Your task to perform on an android device: move a message to another label in the gmail app Image 0: 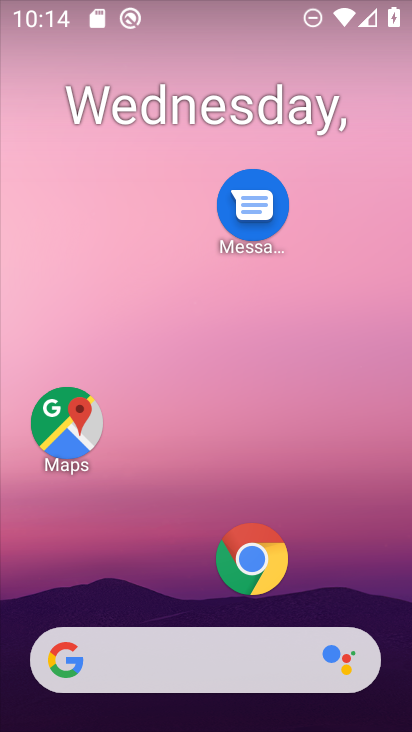
Step 0: drag from (164, 606) to (183, 179)
Your task to perform on an android device: move a message to another label in the gmail app Image 1: 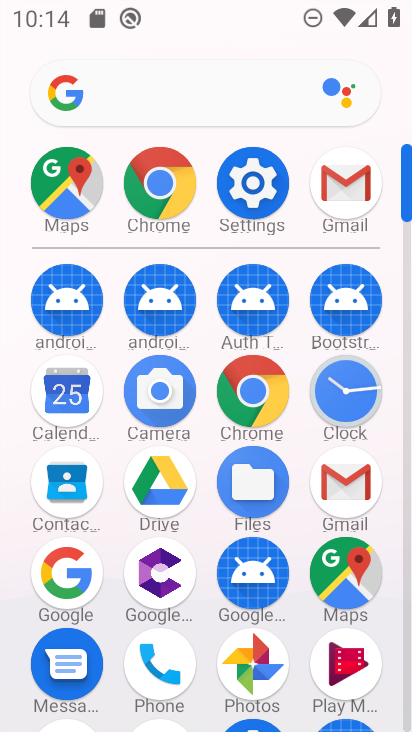
Step 1: click (350, 480)
Your task to perform on an android device: move a message to another label in the gmail app Image 2: 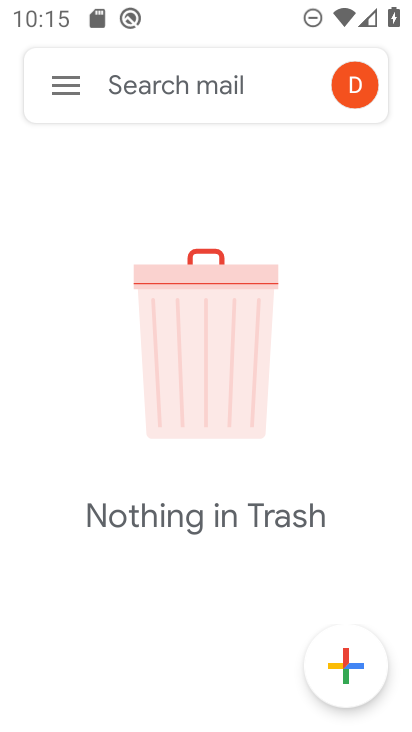
Step 2: press home button
Your task to perform on an android device: move a message to another label in the gmail app Image 3: 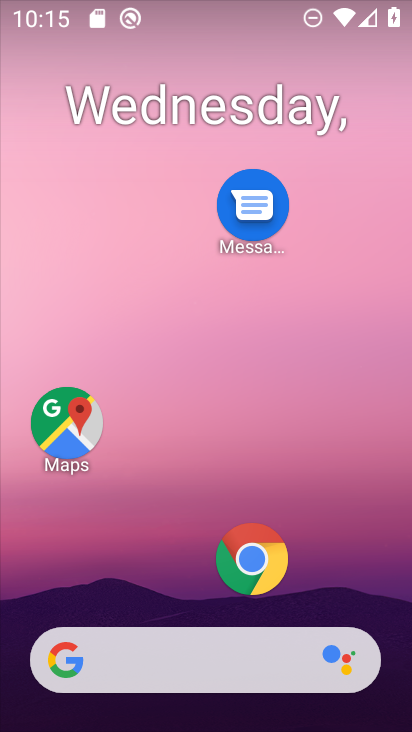
Step 3: drag from (199, 639) to (175, 36)
Your task to perform on an android device: move a message to another label in the gmail app Image 4: 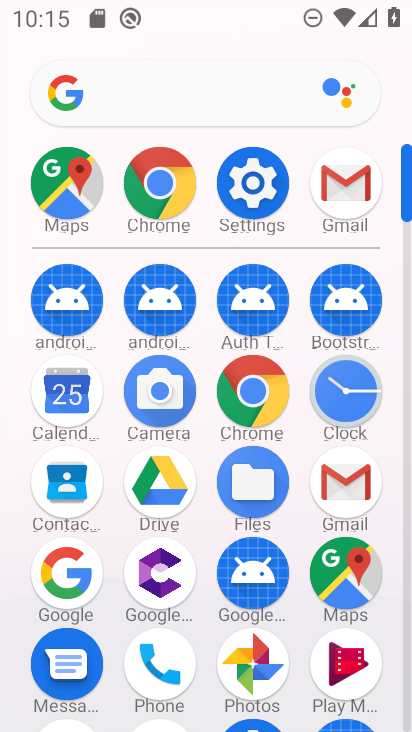
Step 4: click (356, 497)
Your task to perform on an android device: move a message to another label in the gmail app Image 5: 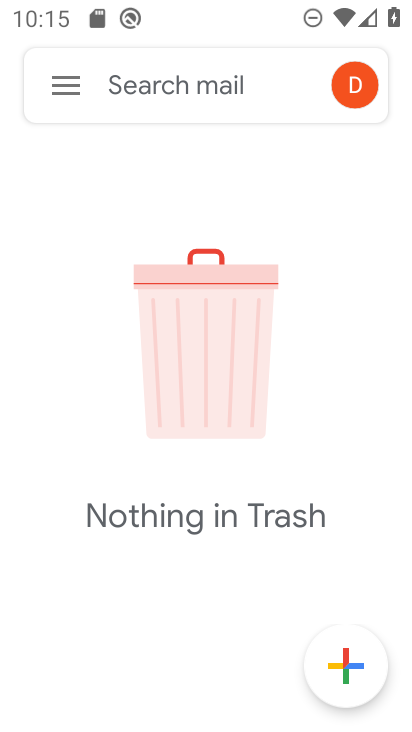
Step 5: click (81, 78)
Your task to perform on an android device: move a message to another label in the gmail app Image 6: 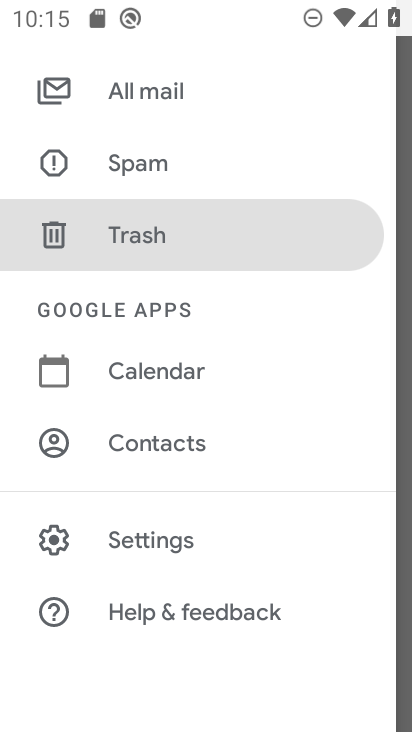
Step 6: click (174, 97)
Your task to perform on an android device: move a message to another label in the gmail app Image 7: 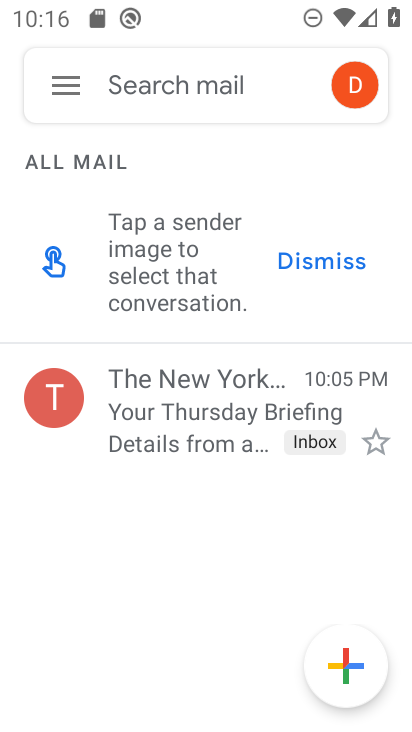
Step 7: click (241, 395)
Your task to perform on an android device: move a message to another label in the gmail app Image 8: 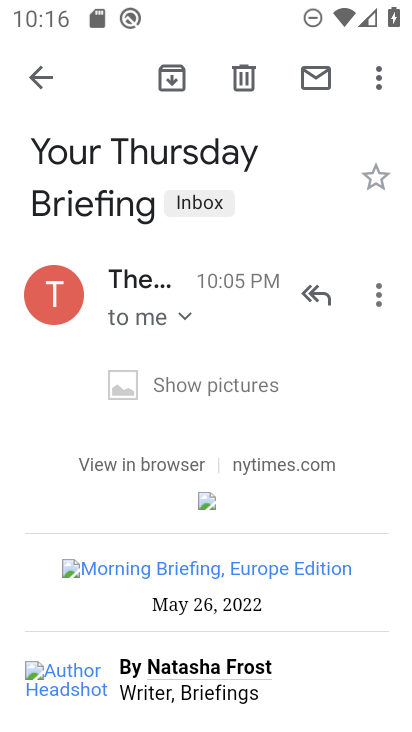
Step 8: click (379, 85)
Your task to perform on an android device: move a message to another label in the gmail app Image 9: 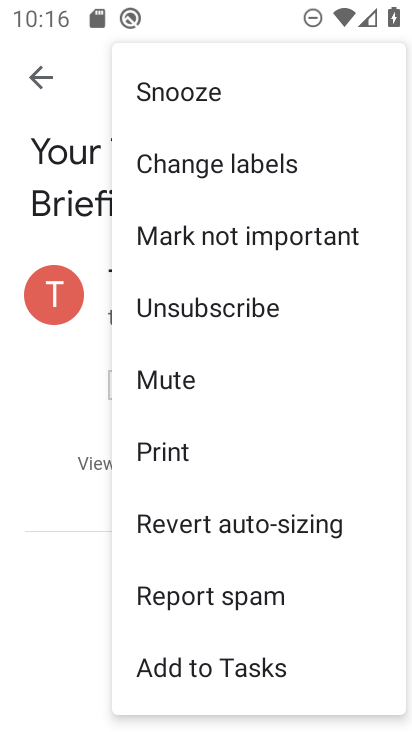
Step 9: click (265, 162)
Your task to perform on an android device: move a message to another label in the gmail app Image 10: 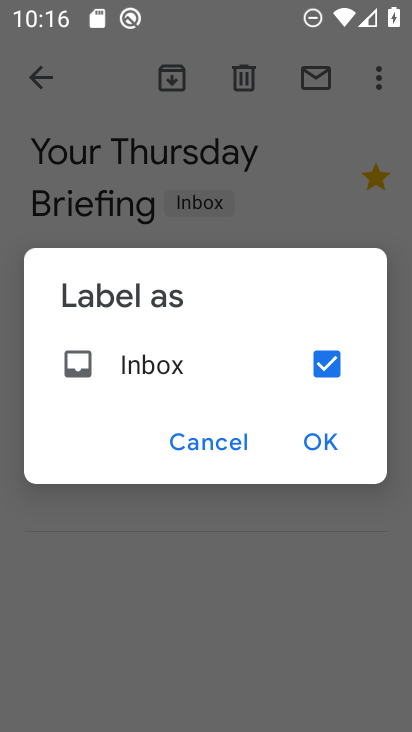
Step 10: click (315, 441)
Your task to perform on an android device: move a message to another label in the gmail app Image 11: 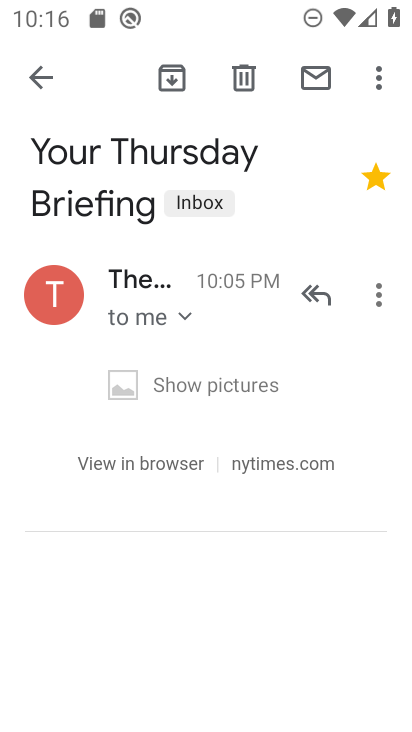
Step 11: task complete